Your task to perform on an android device: turn off location history Image 0: 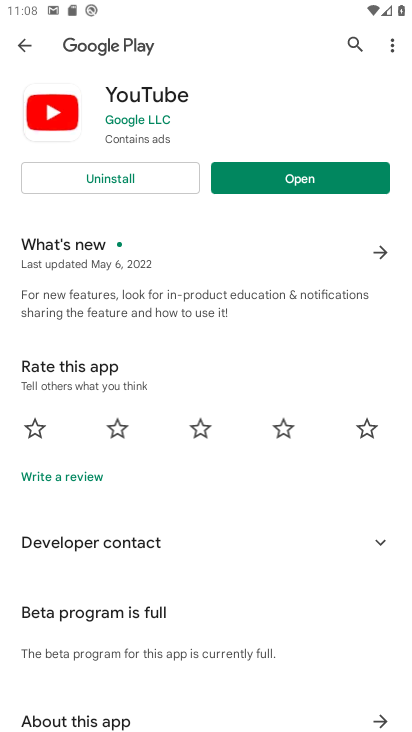
Step 0: press home button
Your task to perform on an android device: turn off location history Image 1: 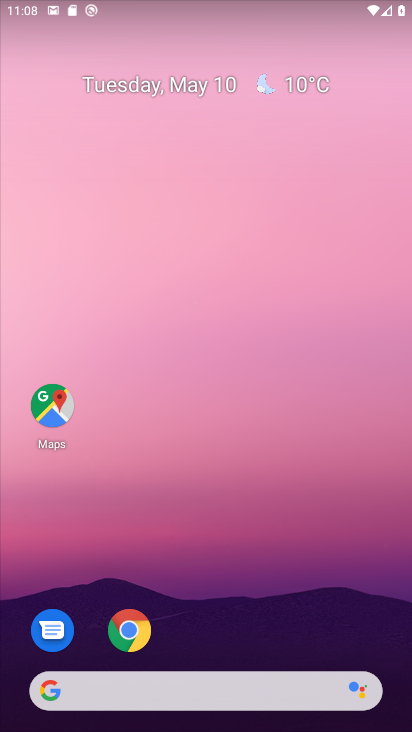
Step 1: drag from (290, 617) to (291, 109)
Your task to perform on an android device: turn off location history Image 2: 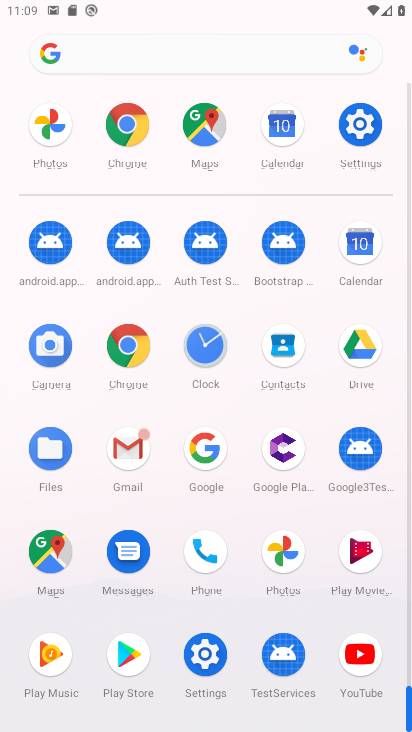
Step 2: click (363, 125)
Your task to perform on an android device: turn off location history Image 3: 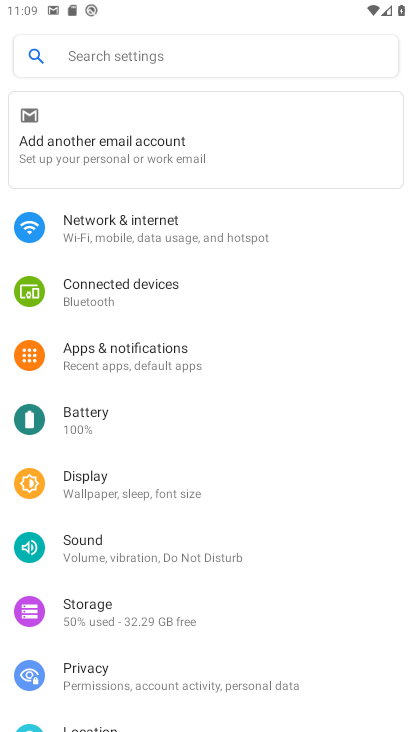
Step 3: drag from (192, 604) to (184, 381)
Your task to perform on an android device: turn off location history Image 4: 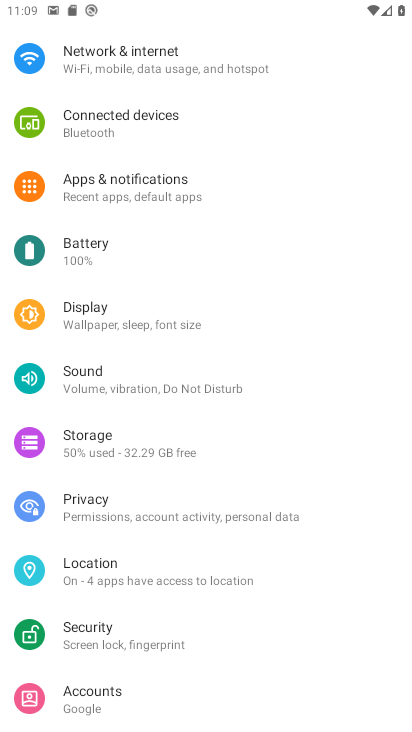
Step 4: click (186, 570)
Your task to perform on an android device: turn off location history Image 5: 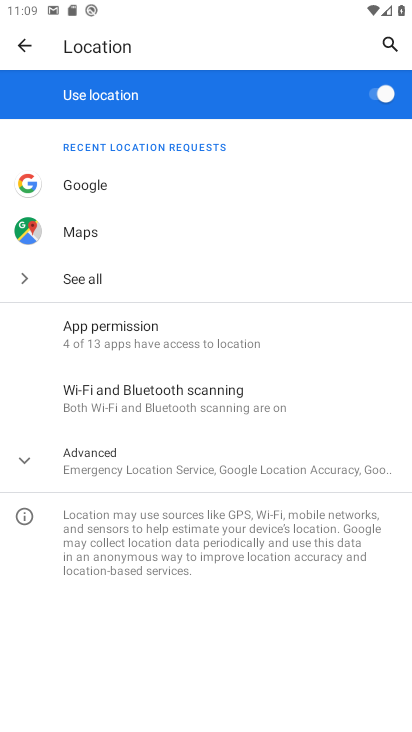
Step 5: click (180, 462)
Your task to perform on an android device: turn off location history Image 6: 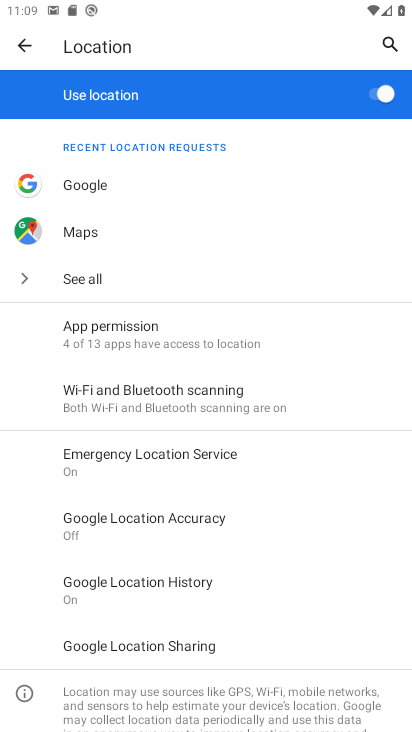
Step 6: drag from (331, 621) to (349, 494)
Your task to perform on an android device: turn off location history Image 7: 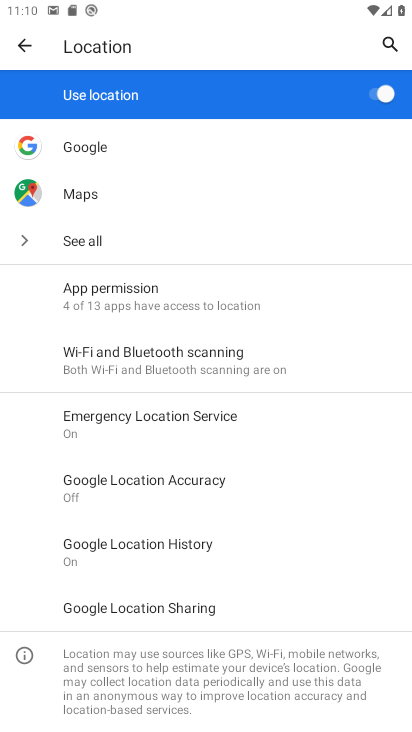
Step 7: click (201, 545)
Your task to perform on an android device: turn off location history Image 8: 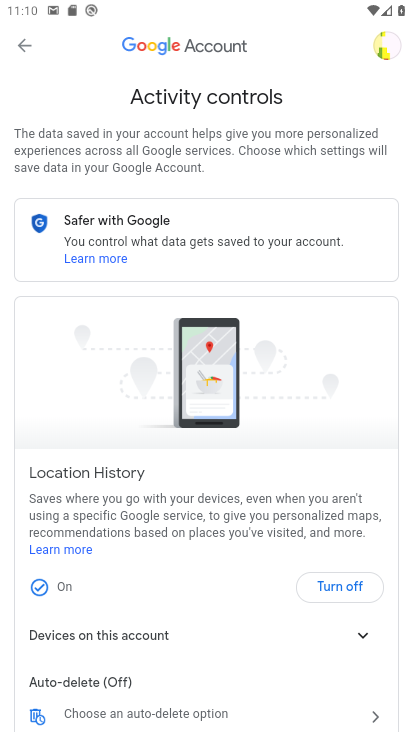
Step 8: click (322, 580)
Your task to perform on an android device: turn off location history Image 9: 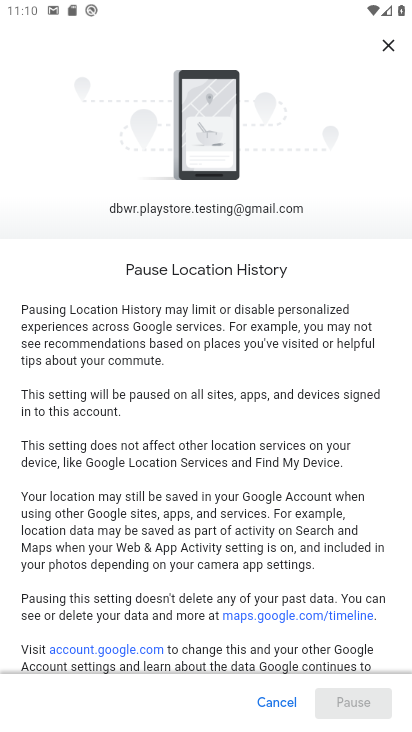
Step 9: drag from (321, 612) to (317, 94)
Your task to perform on an android device: turn off location history Image 10: 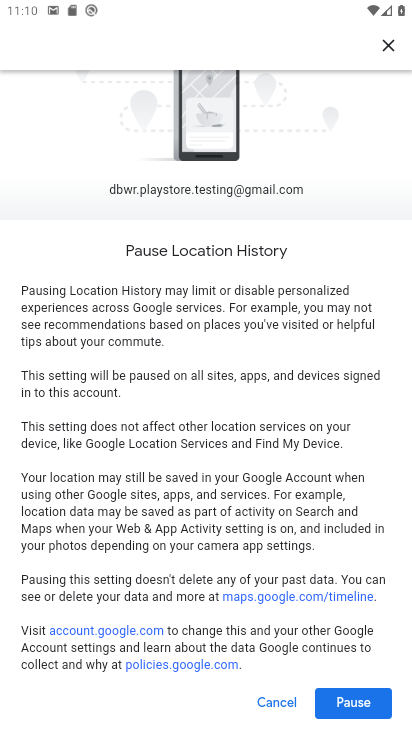
Step 10: click (369, 704)
Your task to perform on an android device: turn off location history Image 11: 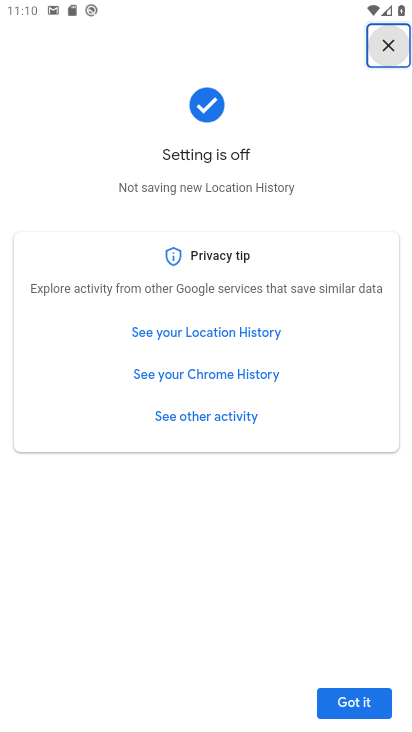
Step 11: click (370, 699)
Your task to perform on an android device: turn off location history Image 12: 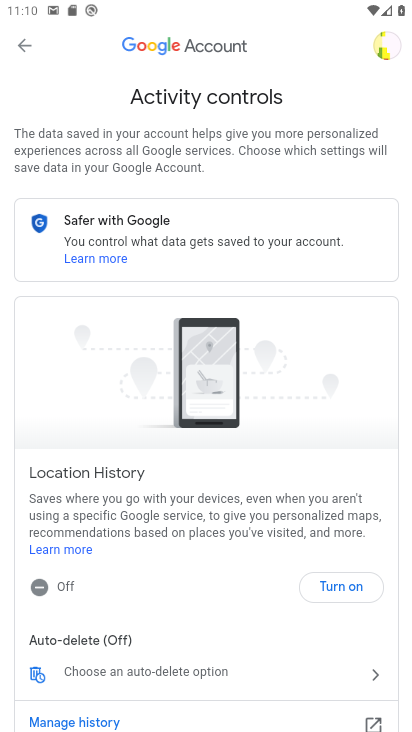
Step 12: task complete